Your task to perform on an android device: change timer sound Image 0: 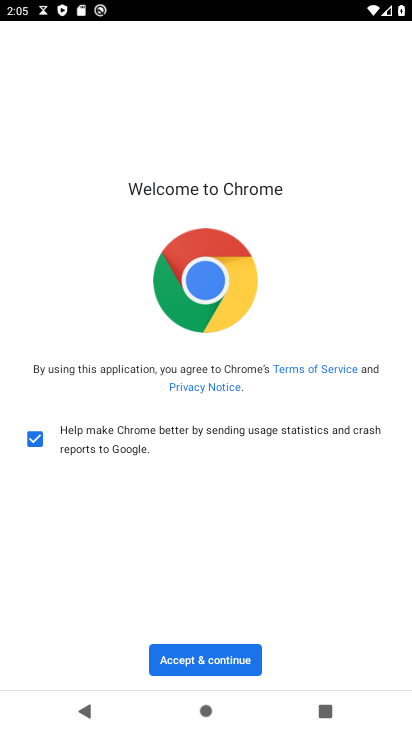
Step 0: press home button
Your task to perform on an android device: change timer sound Image 1: 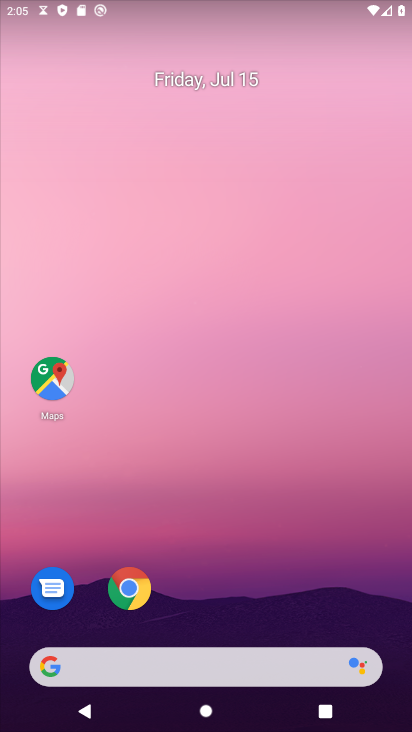
Step 1: drag from (171, 672) to (286, 302)
Your task to perform on an android device: change timer sound Image 2: 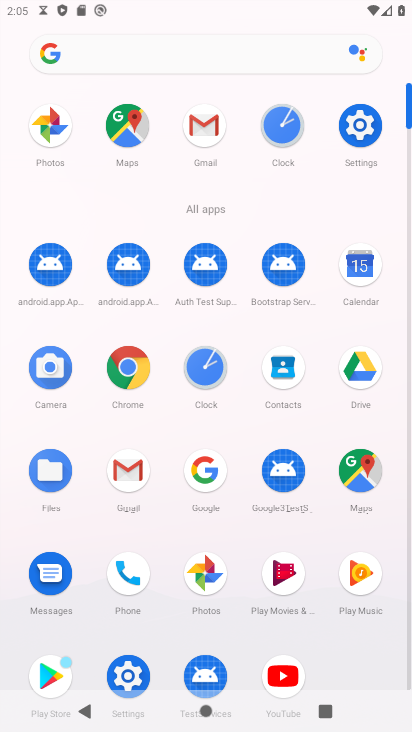
Step 2: click (208, 374)
Your task to perform on an android device: change timer sound Image 3: 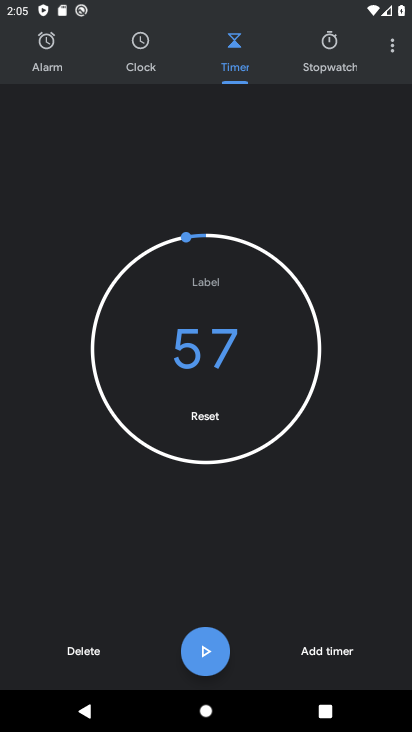
Step 3: click (397, 55)
Your task to perform on an android device: change timer sound Image 4: 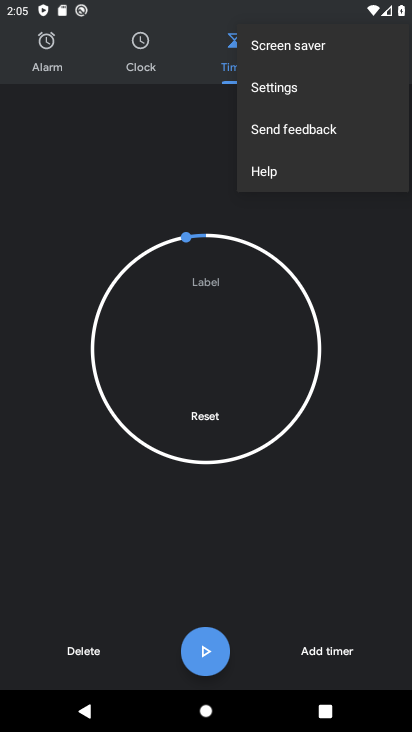
Step 4: click (287, 86)
Your task to perform on an android device: change timer sound Image 5: 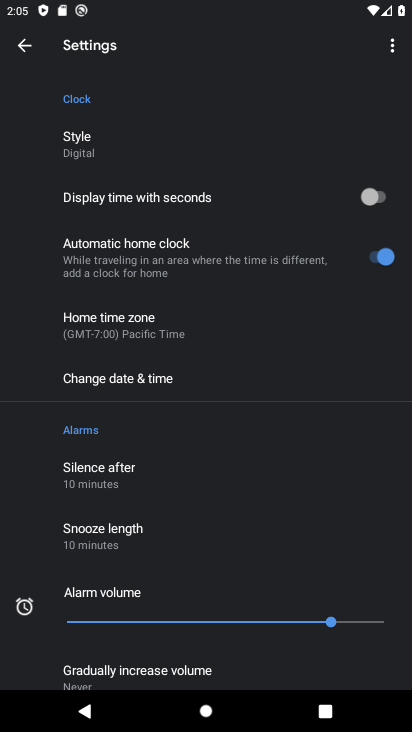
Step 5: drag from (166, 569) to (325, 238)
Your task to perform on an android device: change timer sound Image 6: 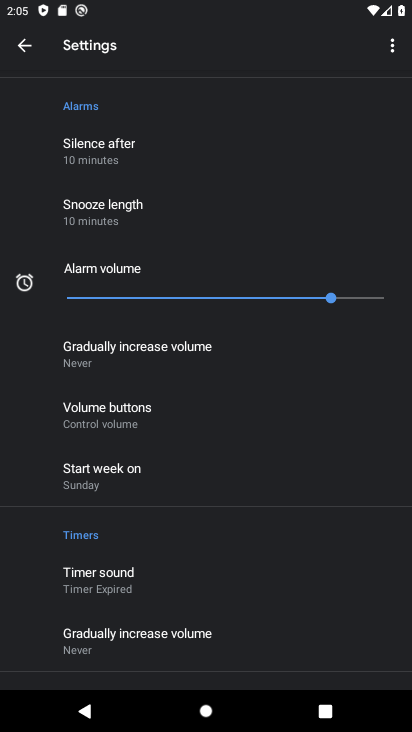
Step 6: click (128, 579)
Your task to perform on an android device: change timer sound Image 7: 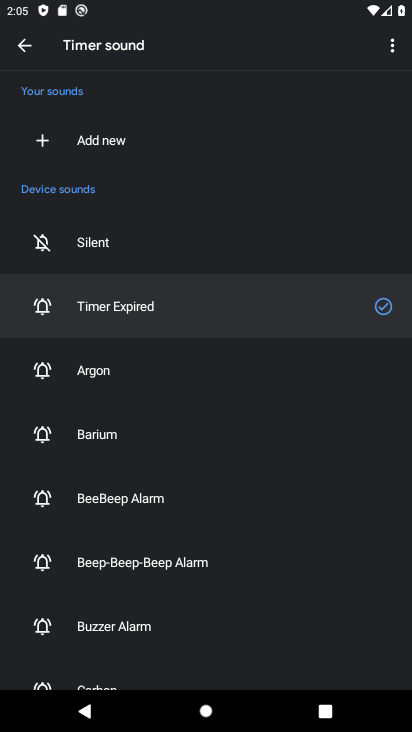
Step 7: click (108, 439)
Your task to perform on an android device: change timer sound Image 8: 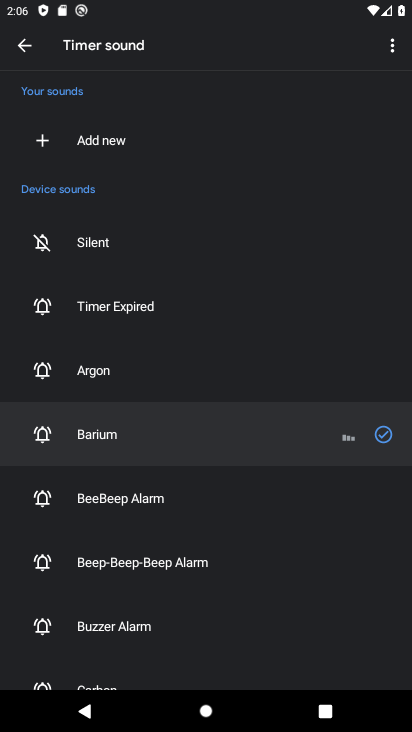
Step 8: task complete